Your task to perform on an android device: add a label to a message in the gmail app Image 0: 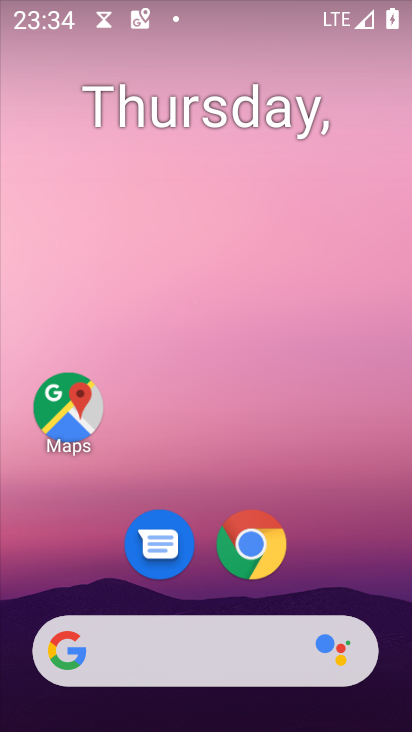
Step 0: drag from (329, 587) to (260, 245)
Your task to perform on an android device: add a label to a message in the gmail app Image 1: 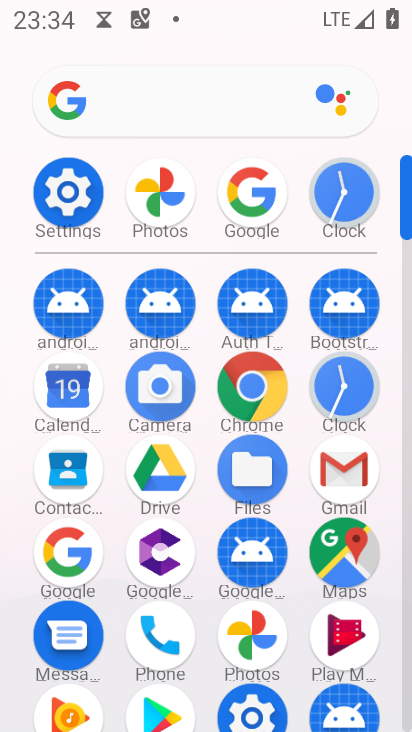
Step 1: click (351, 459)
Your task to perform on an android device: add a label to a message in the gmail app Image 2: 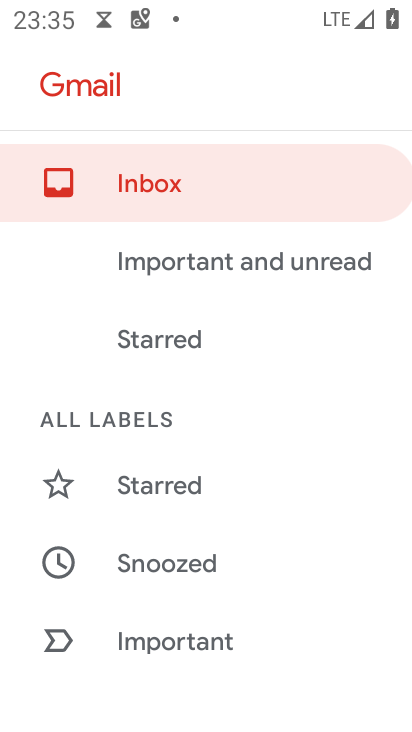
Step 2: drag from (178, 526) to (185, 215)
Your task to perform on an android device: add a label to a message in the gmail app Image 3: 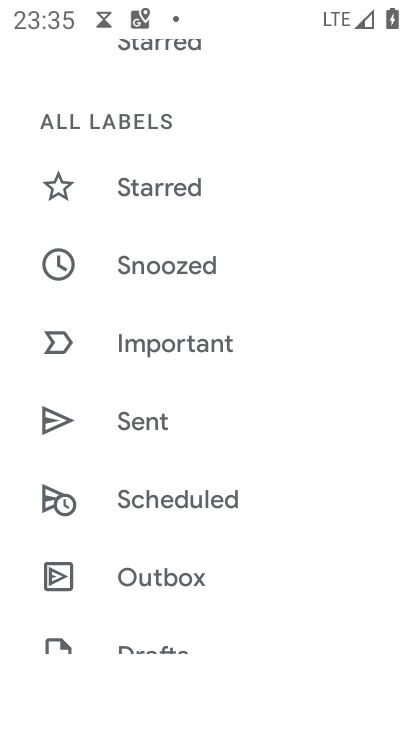
Step 3: drag from (170, 598) to (195, 222)
Your task to perform on an android device: add a label to a message in the gmail app Image 4: 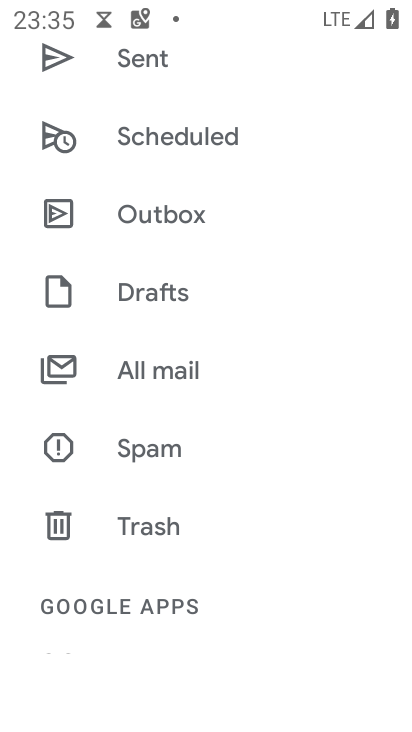
Step 4: drag from (174, 615) to (202, 335)
Your task to perform on an android device: add a label to a message in the gmail app Image 5: 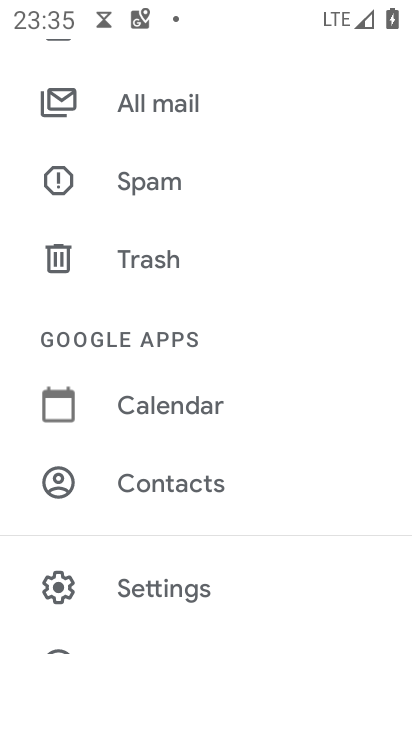
Step 5: click (165, 256)
Your task to perform on an android device: add a label to a message in the gmail app Image 6: 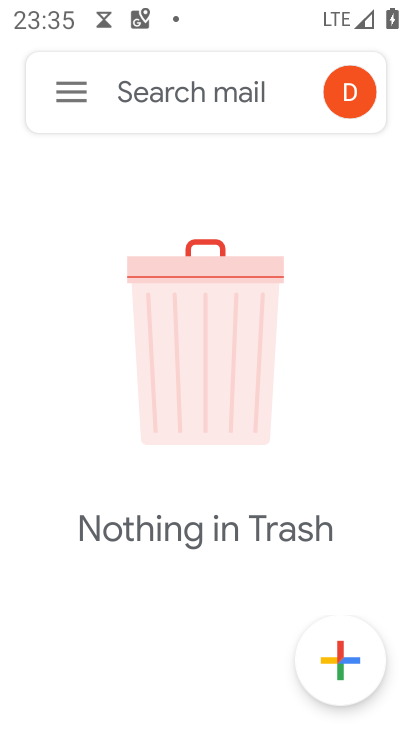
Step 6: click (55, 90)
Your task to perform on an android device: add a label to a message in the gmail app Image 7: 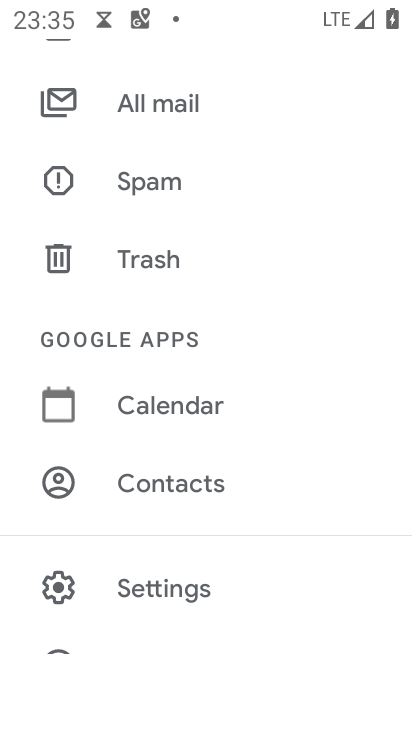
Step 7: drag from (266, 252) to (215, 628)
Your task to perform on an android device: add a label to a message in the gmail app Image 8: 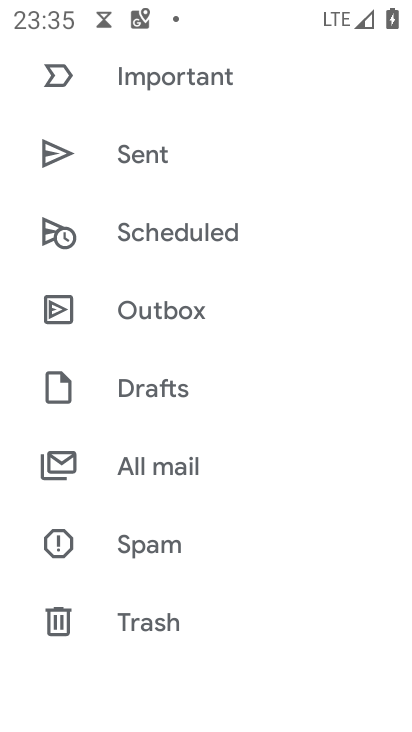
Step 8: drag from (292, 198) to (257, 658)
Your task to perform on an android device: add a label to a message in the gmail app Image 9: 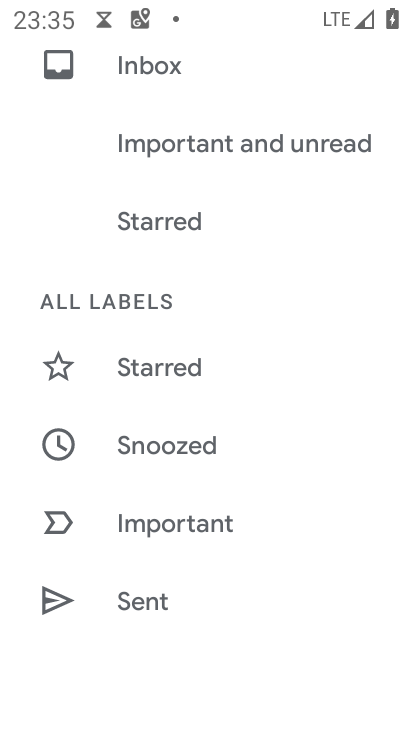
Step 9: drag from (166, 208) to (141, 423)
Your task to perform on an android device: add a label to a message in the gmail app Image 10: 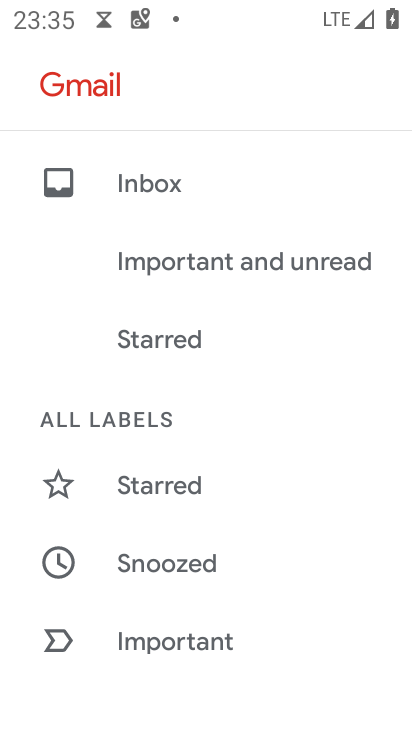
Step 10: click (120, 169)
Your task to perform on an android device: add a label to a message in the gmail app Image 11: 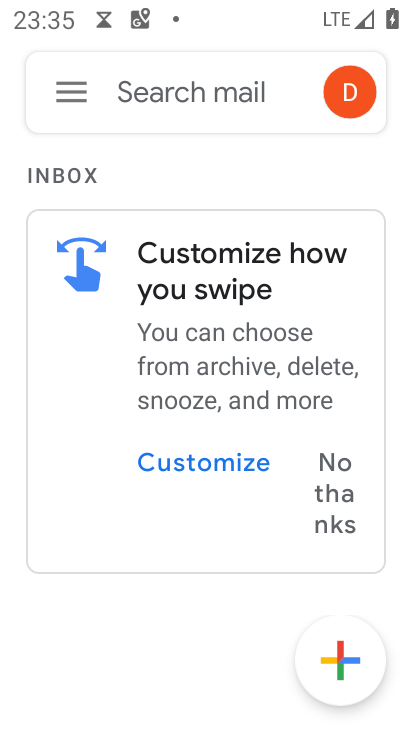
Step 11: task complete